Your task to perform on an android device: Go to settings Image 0: 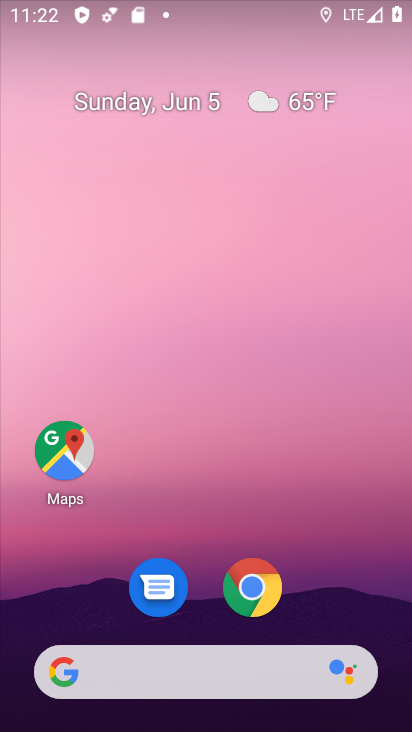
Step 0: drag from (210, 626) to (272, 75)
Your task to perform on an android device: Go to settings Image 1: 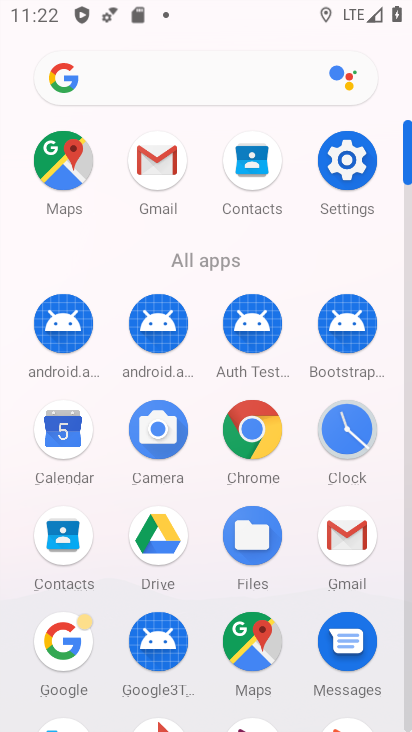
Step 1: click (336, 167)
Your task to perform on an android device: Go to settings Image 2: 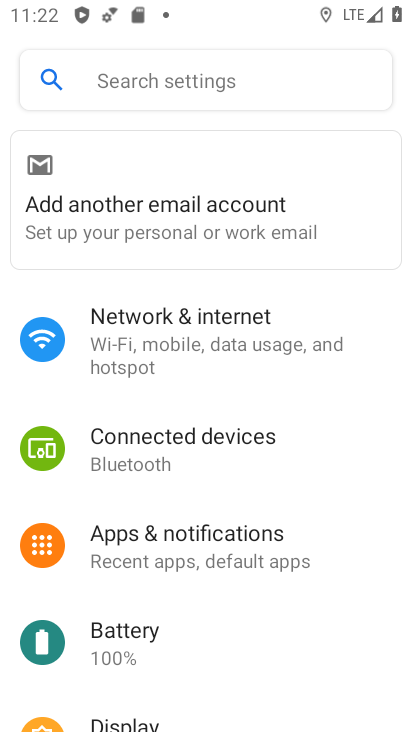
Step 2: task complete